Your task to perform on an android device: turn pop-ups on in chrome Image 0: 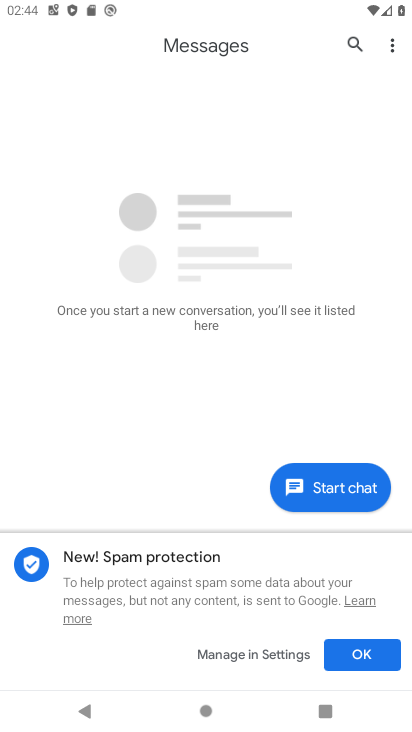
Step 0: press home button
Your task to perform on an android device: turn pop-ups on in chrome Image 1: 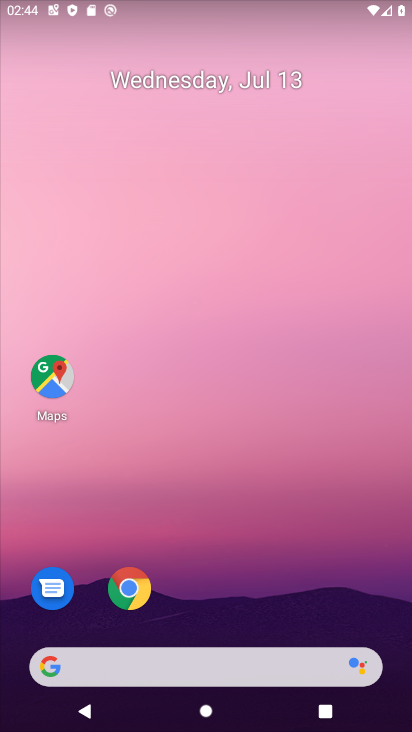
Step 1: drag from (396, 703) to (334, 246)
Your task to perform on an android device: turn pop-ups on in chrome Image 2: 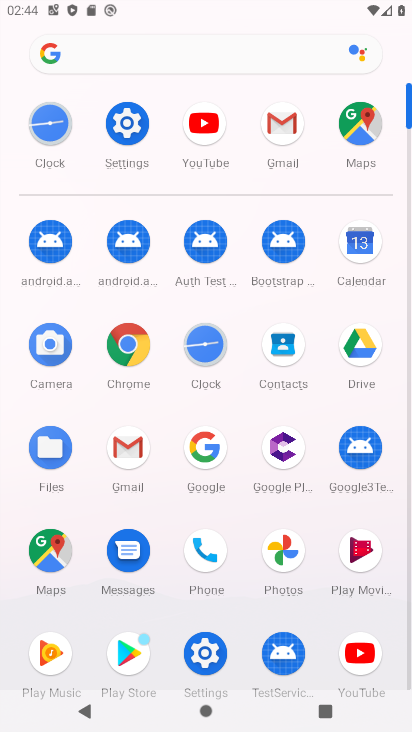
Step 2: drag from (176, 662) to (146, 330)
Your task to perform on an android device: turn pop-ups on in chrome Image 3: 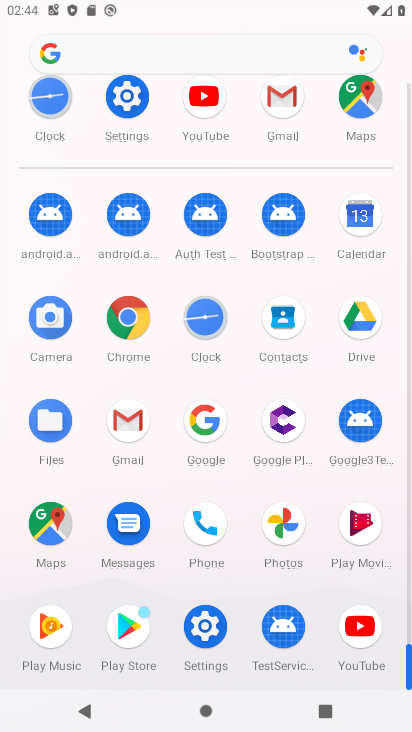
Step 3: click (133, 314)
Your task to perform on an android device: turn pop-ups on in chrome Image 4: 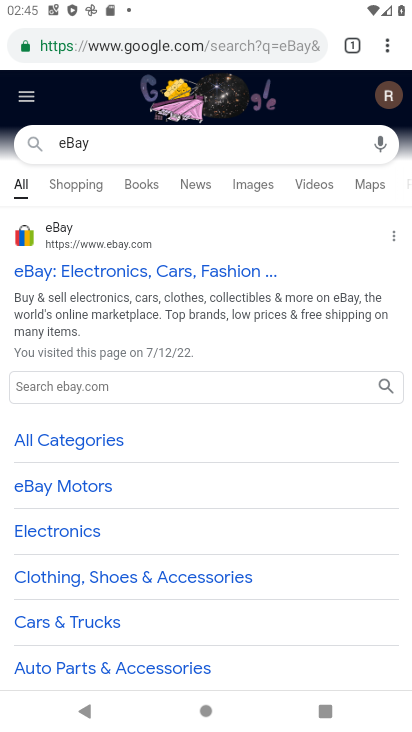
Step 4: click (385, 47)
Your task to perform on an android device: turn pop-ups on in chrome Image 5: 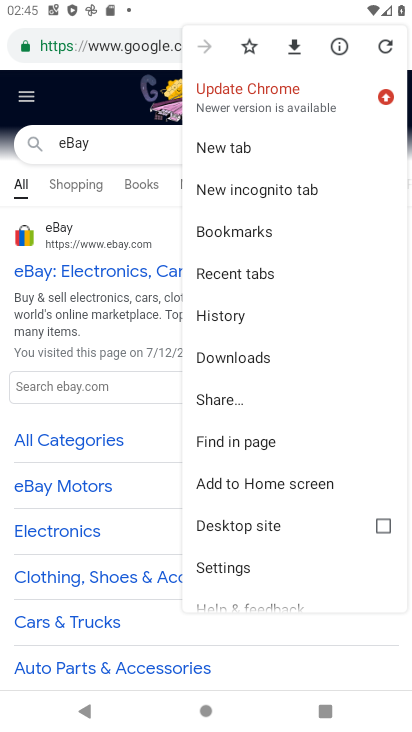
Step 5: click (235, 566)
Your task to perform on an android device: turn pop-ups on in chrome Image 6: 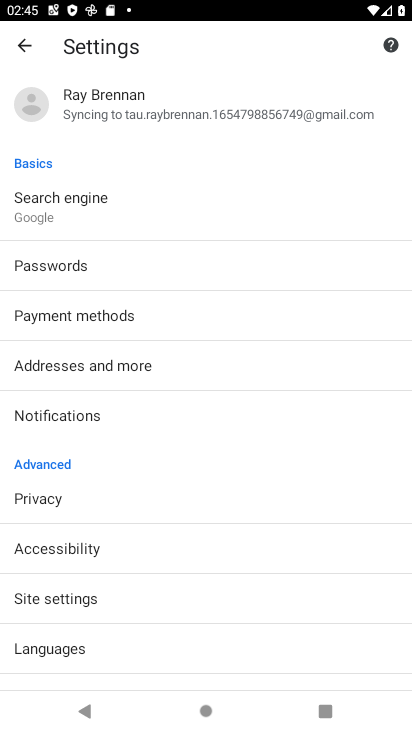
Step 6: click (46, 601)
Your task to perform on an android device: turn pop-ups on in chrome Image 7: 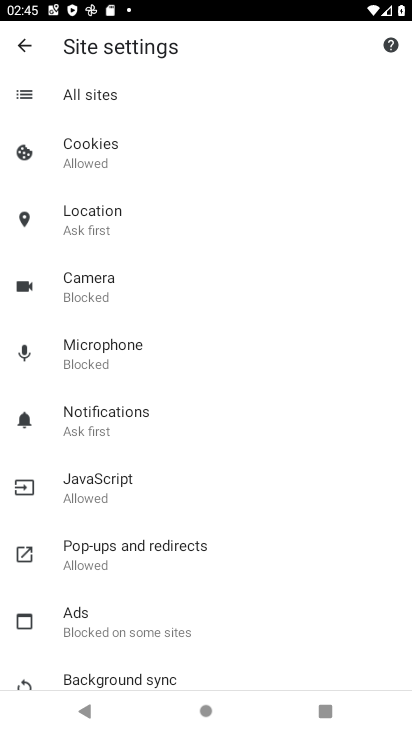
Step 7: click (87, 551)
Your task to perform on an android device: turn pop-ups on in chrome Image 8: 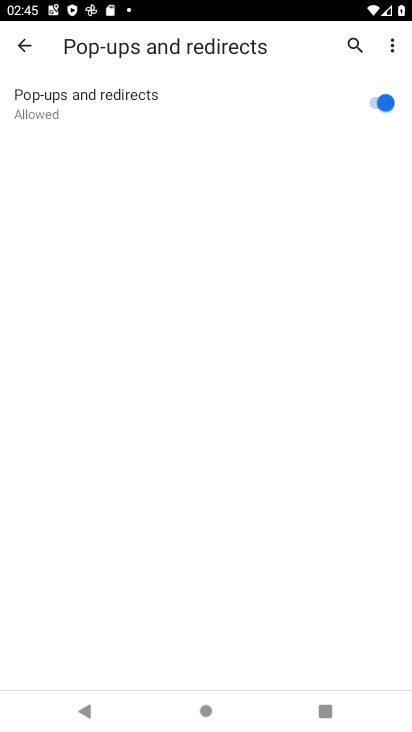
Step 8: task complete